Your task to perform on an android device: toggle notification dots Image 0: 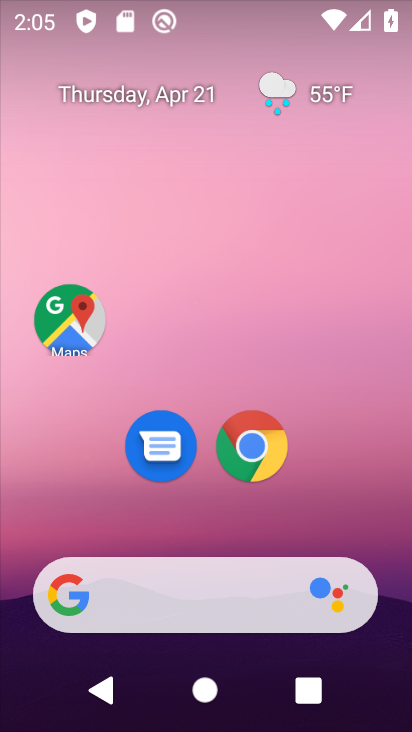
Step 0: drag from (209, 707) to (206, 61)
Your task to perform on an android device: toggle notification dots Image 1: 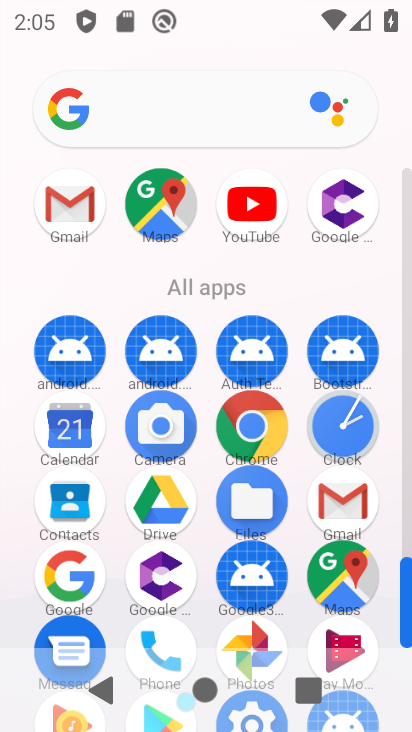
Step 1: drag from (200, 578) to (207, 248)
Your task to perform on an android device: toggle notification dots Image 2: 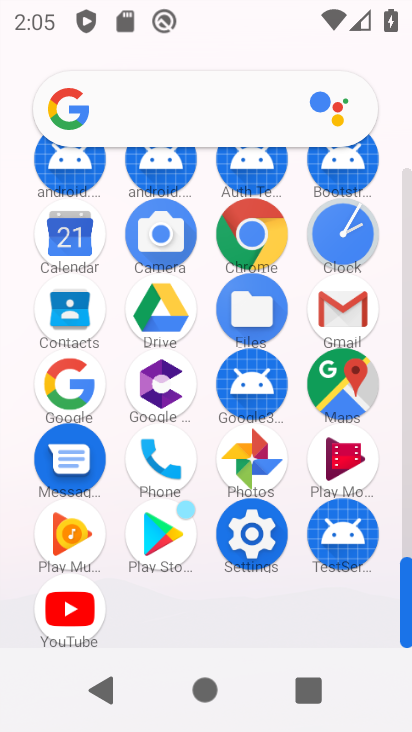
Step 2: click (252, 533)
Your task to perform on an android device: toggle notification dots Image 3: 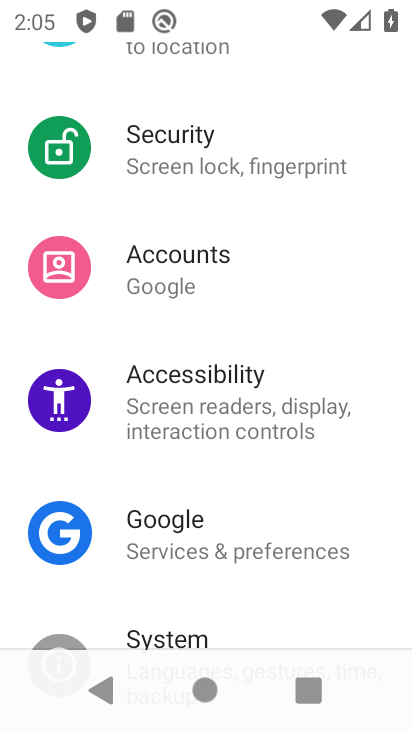
Step 3: drag from (240, 117) to (232, 500)
Your task to perform on an android device: toggle notification dots Image 4: 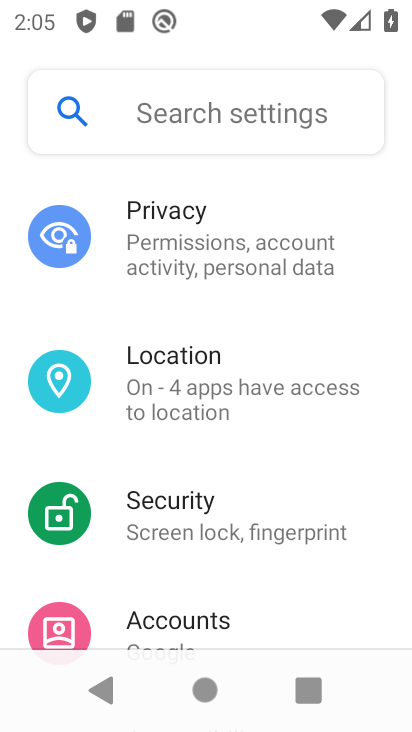
Step 4: drag from (245, 199) to (232, 501)
Your task to perform on an android device: toggle notification dots Image 5: 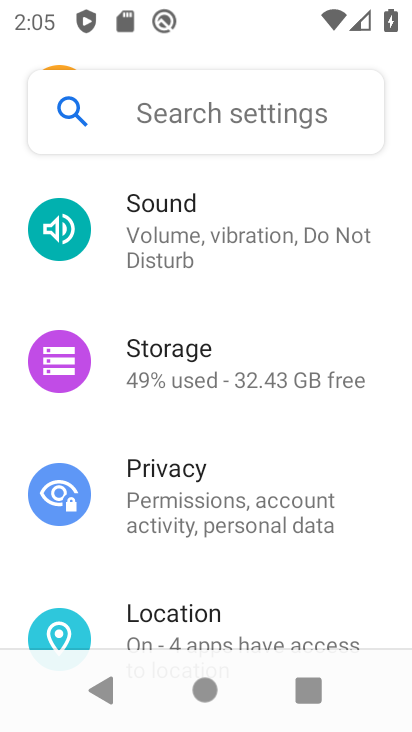
Step 5: drag from (258, 201) to (255, 525)
Your task to perform on an android device: toggle notification dots Image 6: 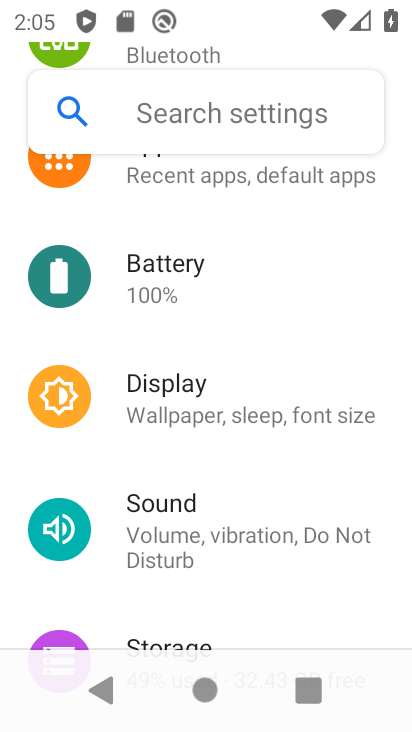
Step 6: drag from (233, 222) to (233, 482)
Your task to perform on an android device: toggle notification dots Image 7: 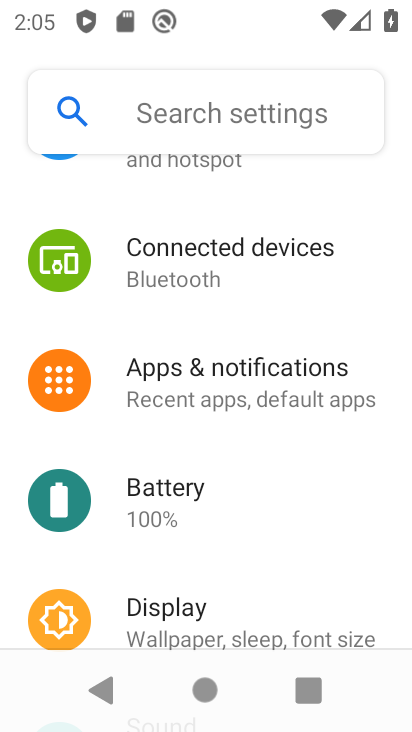
Step 7: click (222, 381)
Your task to perform on an android device: toggle notification dots Image 8: 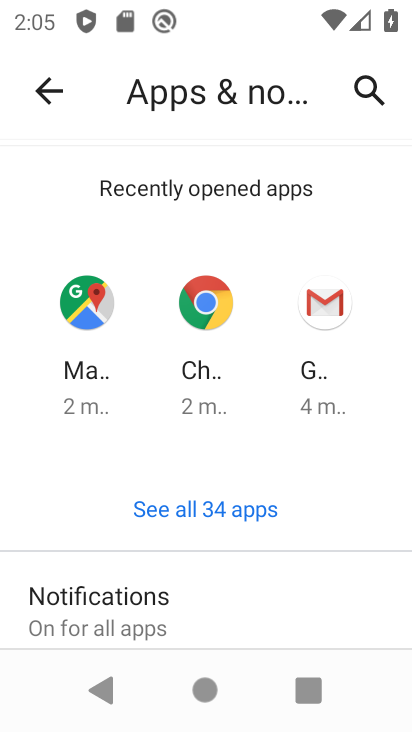
Step 8: drag from (255, 633) to (258, 384)
Your task to perform on an android device: toggle notification dots Image 9: 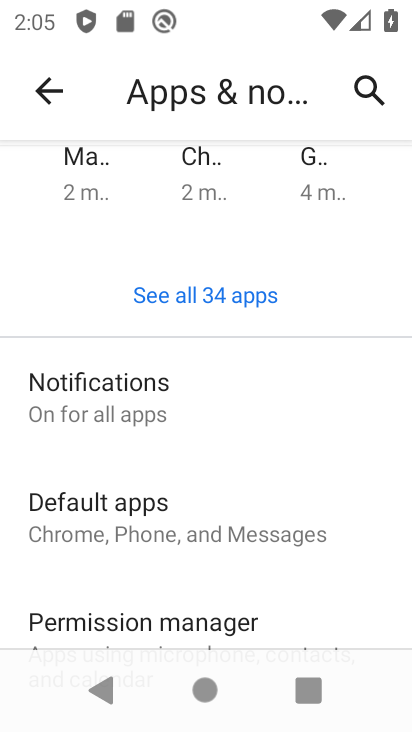
Step 9: click (111, 397)
Your task to perform on an android device: toggle notification dots Image 10: 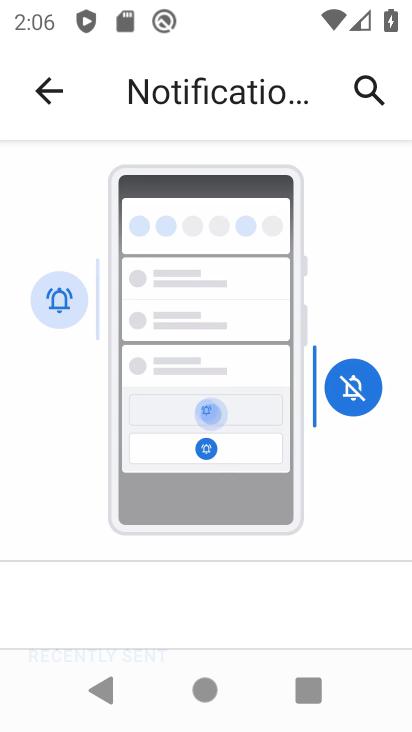
Step 10: drag from (238, 614) to (253, 220)
Your task to perform on an android device: toggle notification dots Image 11: 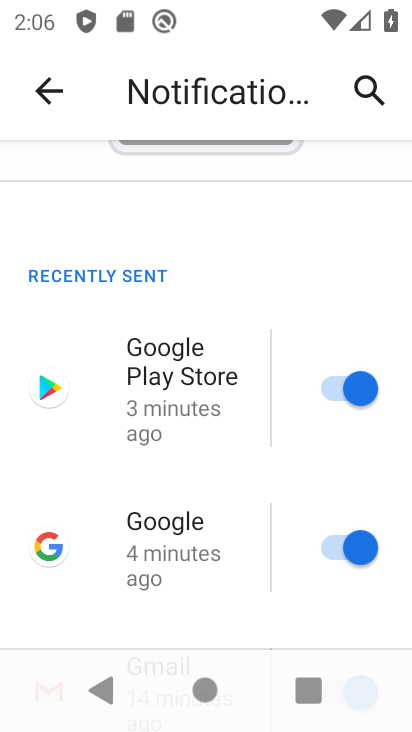
Step 11: drag from (245, 630) to (231, 280)
Your task to perform on an android device: toggle notification dots Image 12: 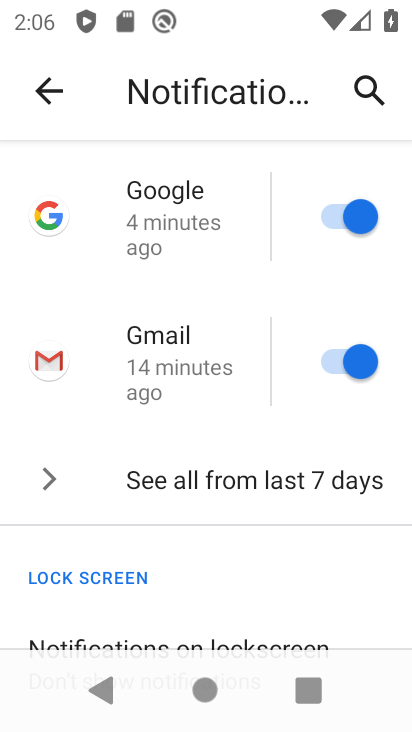
Step 12: drag from (230, 613) to (239, 273)
Your task to perform on an android device: toggle notification dots Image 13: 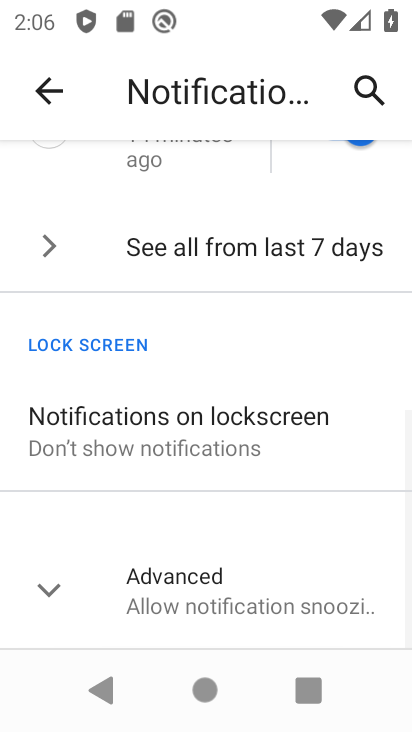
Step 13: click (209, 597)
Your task to perform on an android device: toggle notification dots Image 14: 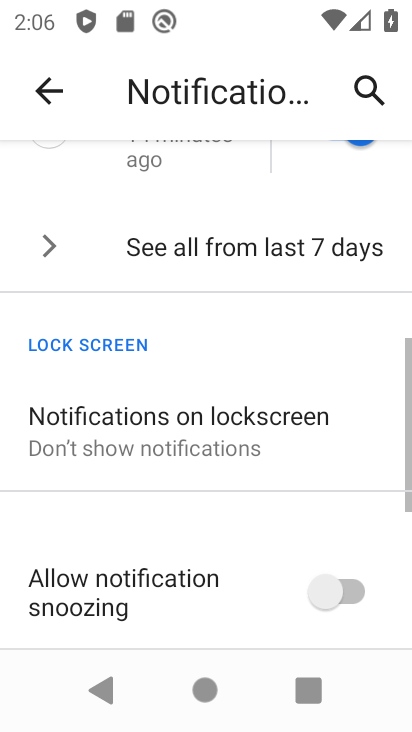
Step 14: drag from (246, 621) to (255, 206)
Your task to perform on an android device: toggle notification dots Image 15: 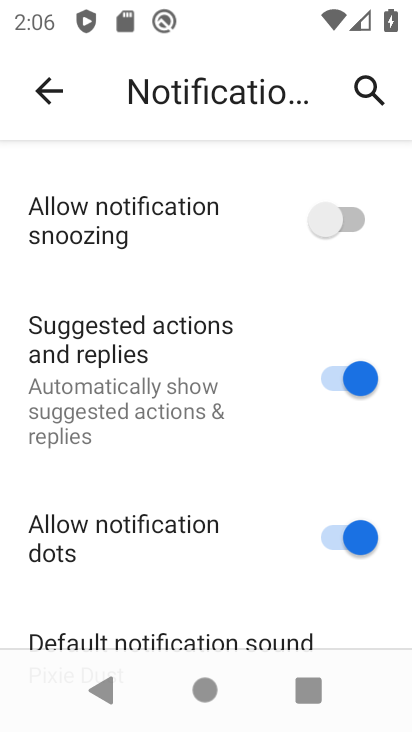
Step 15: click (337, 542)
Your task to perform on an android device: toggle notification dots Image 16: 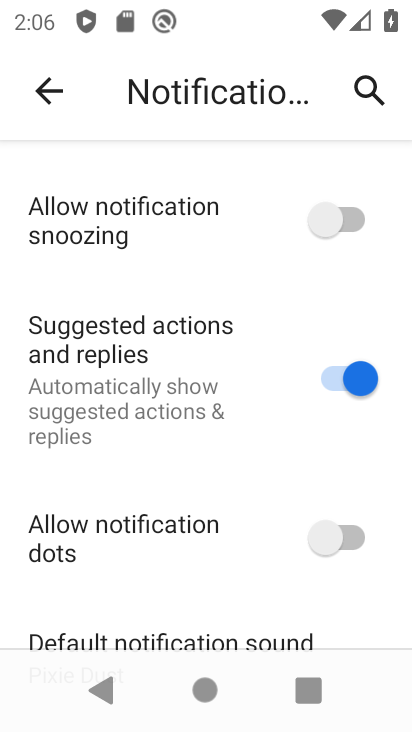
Step 16: task complete